Your task to perform on an android device: empty trash in the gmail app Image 0: 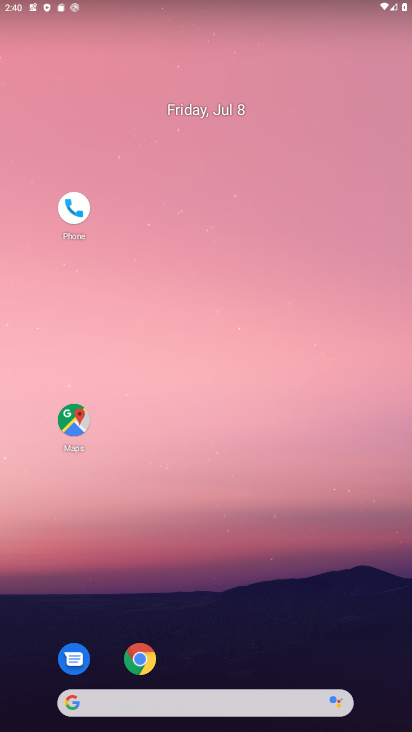
Step 0: drag from (203, 653) to (85, 1)
Your task to perform on an android device: empty trash in the gmail app Image 1: 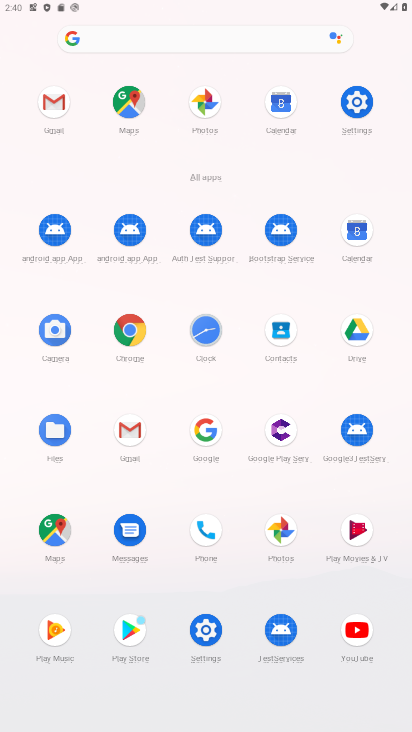
Step 1: click (178, 52)
Your task to perform on an android device: empty trash in the gmail app Image 2: 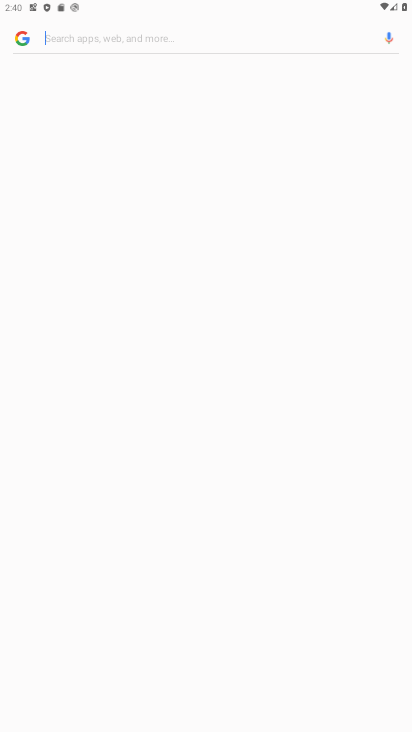
Step 2: drag from (288, 188) to (178, 18)
Your task to perform on an android device: empty trash in the gmail app Image 3: 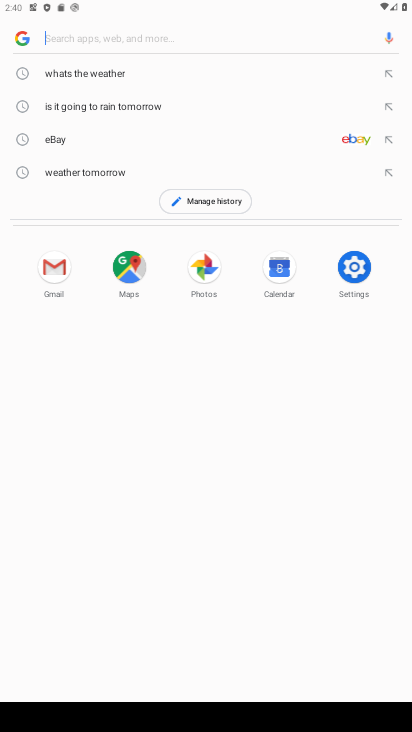
Step 3: press back button
Your task to perform on an android device: empty trash in the gmail app Image 4: 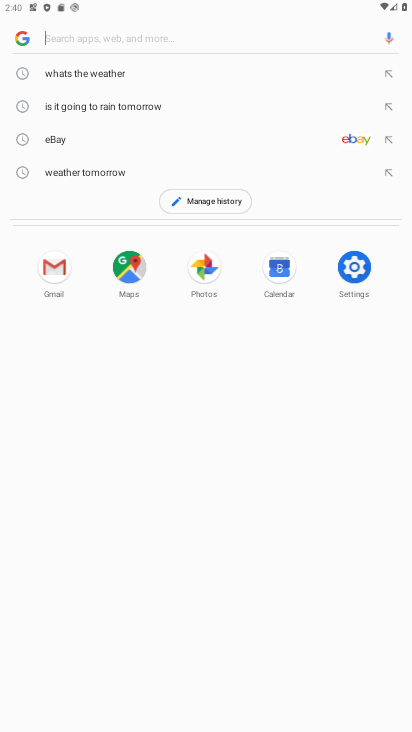
Step 4: press back button
Your task to perform on an android device: empty trash in the gmail app Image 5: 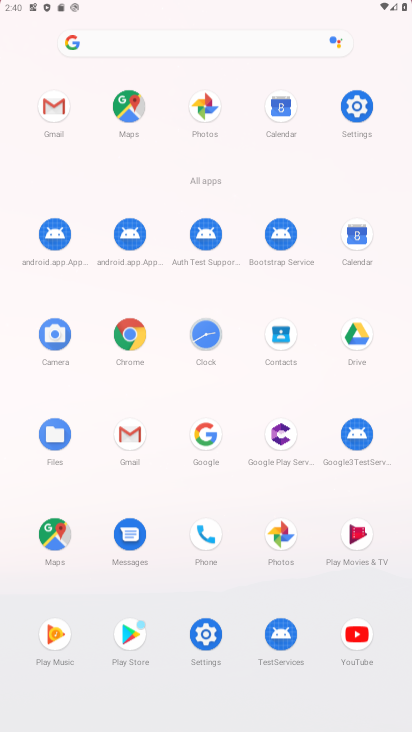
Step 5: press back button
Your task to perform on an android device: empty trash in the gmail app Image 6: 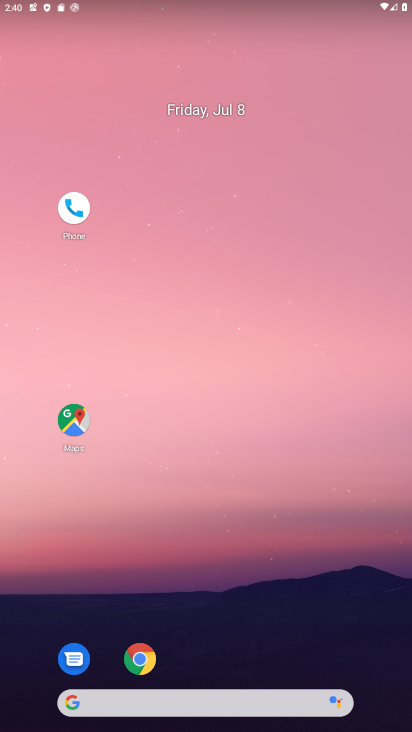
Step 6: press back button
Your task to perform on an android device: empty trash in the gmail app Image 7: 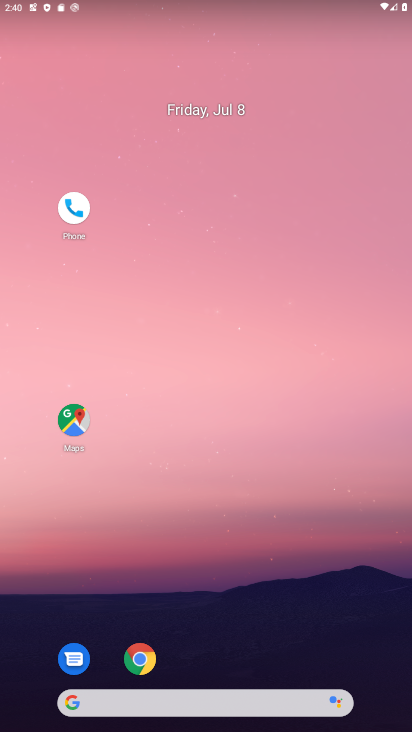
Step 7: click (166, 116)
Your task to perform on an android device: empty trash in the gmail app Image 8: 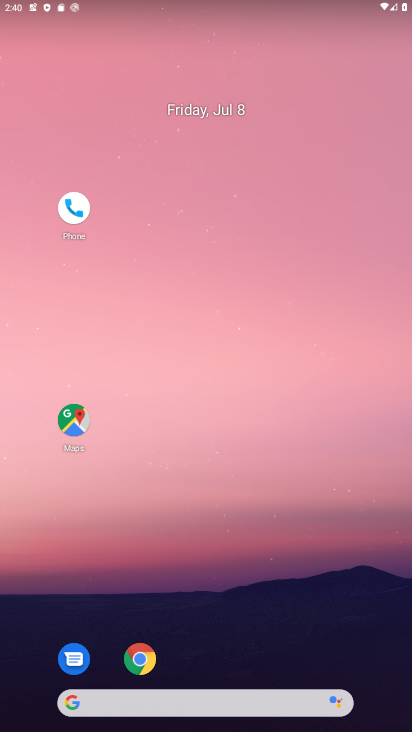
Step 8: drag from (296, 493) to (157, 90)
Your task to perform on an android device: empty trash in the gmail app Image 9: 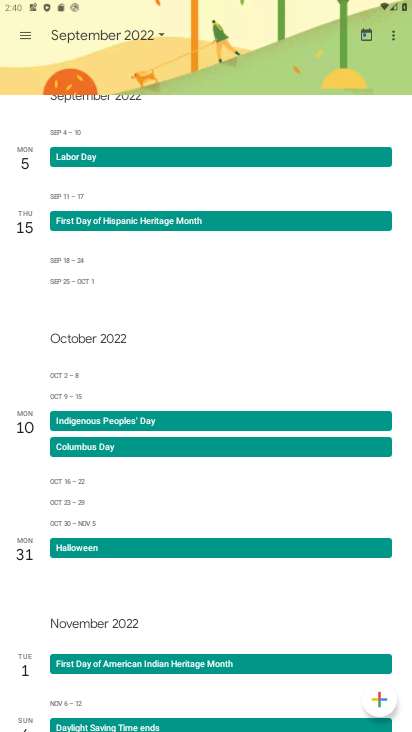
Step 9: drag from (44, 3) to (134, 0)
Your task to perform on an android device: empty trash in the gmail app Image 10: 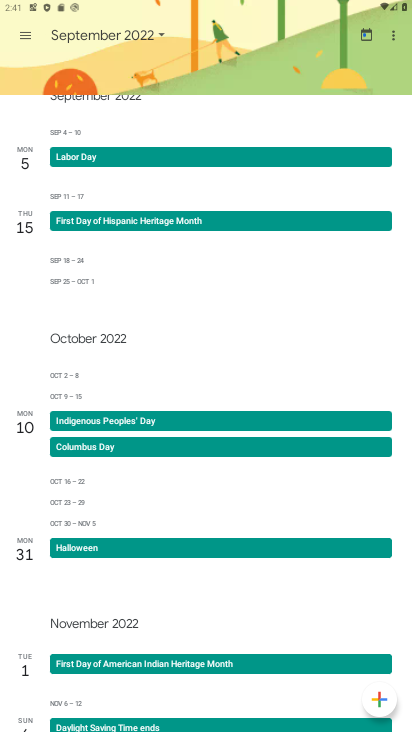
Step 10: press back button
Your task to perform on an android device: empty trash in the gmail app Image 11: 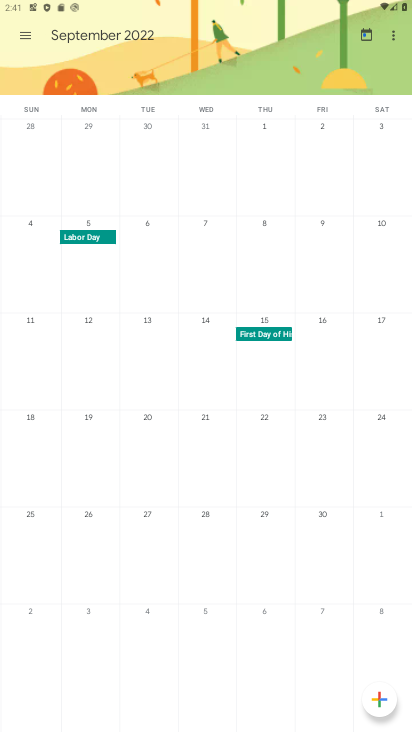
Step 11: press back button
Your task to perform on an android device: empty trash in the gmail app Image 12: 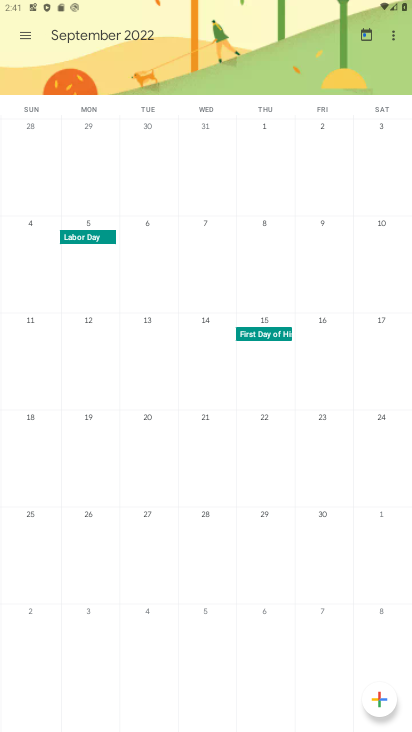
Step 12: press back button
Your task to perform on an android device: empty trash in the gmail app Image 13: 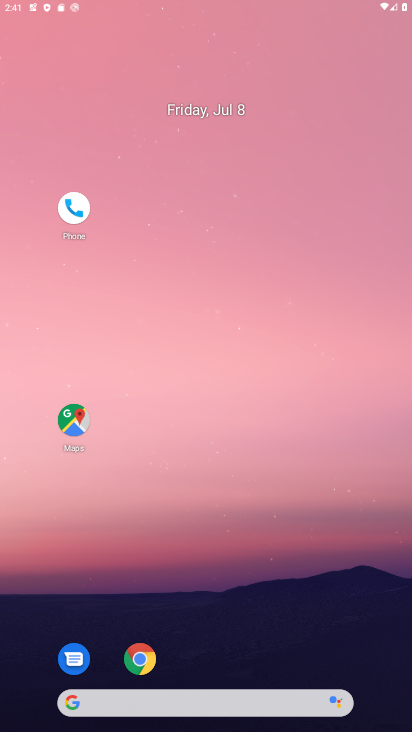
Step 13: press back button
Your task to perform on an android device: empty trash in the gmail app Image 14: 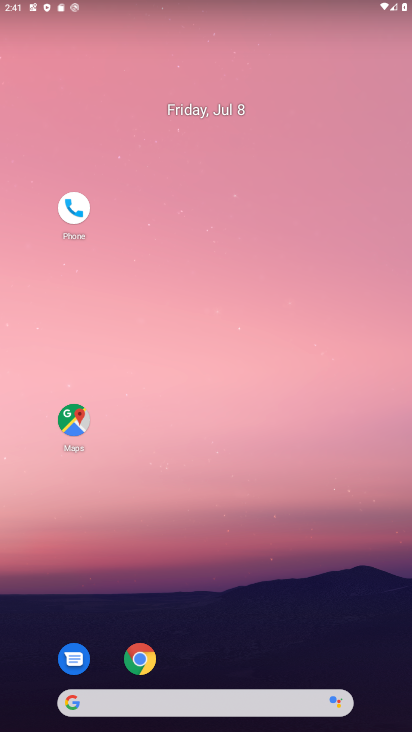
Step 14: press home button
Your task to perform on an android device: empty trash in the gmail app Image 15: 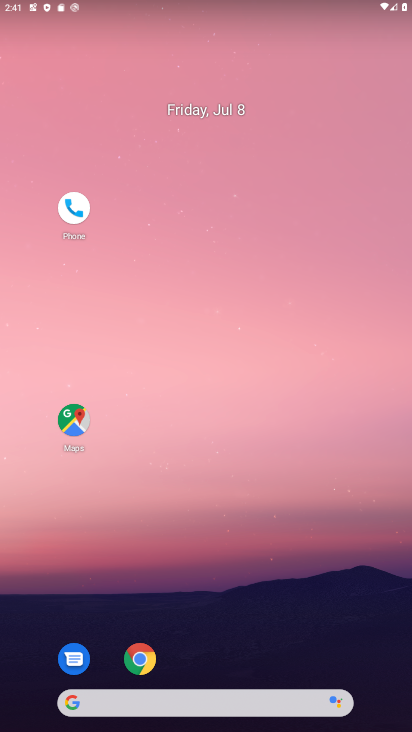
Step 15: press home button
Your task to perform on an android device: empty trash in the gmail app Image 16: 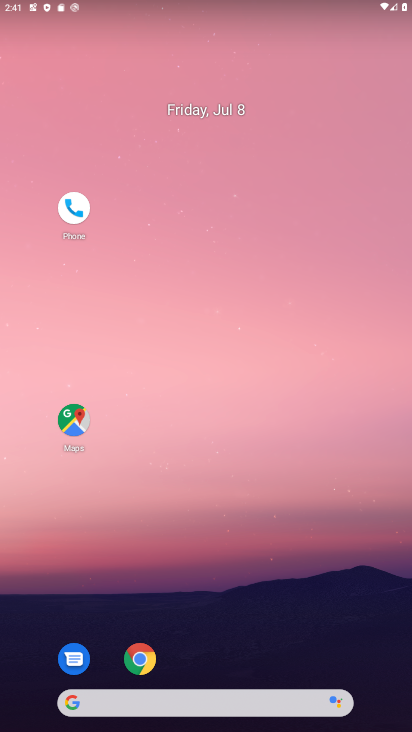
Step 16: press home button
Your task to perform on an android device: empty trash in the gmail app Image 17: 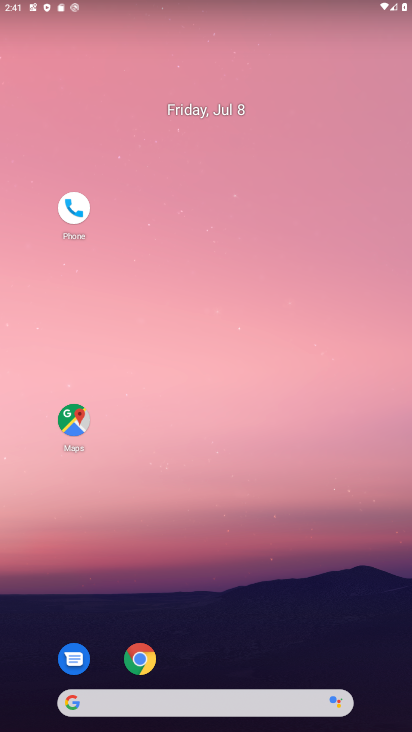
Step 17: drag from (207, 271) to (99, 11)
Your task to perform on an android device: empty trash in the gmail app Image 18: 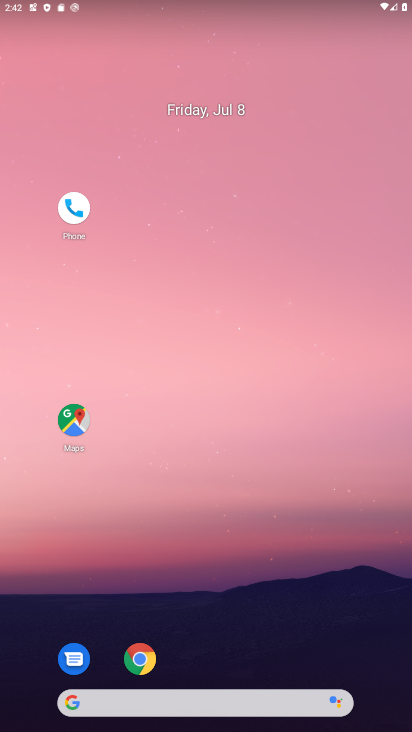
Step 18: click (103, 36)
Your task to perform on an android device: empty trash in the gmail app Image 19: 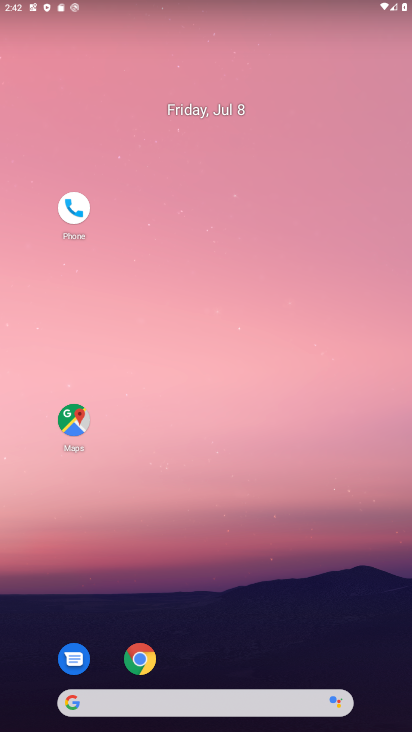
Step 19: drag from (164, 334) to (132, 0)
Your task to perform on an android device: empty trash in the gmail app Image 20: 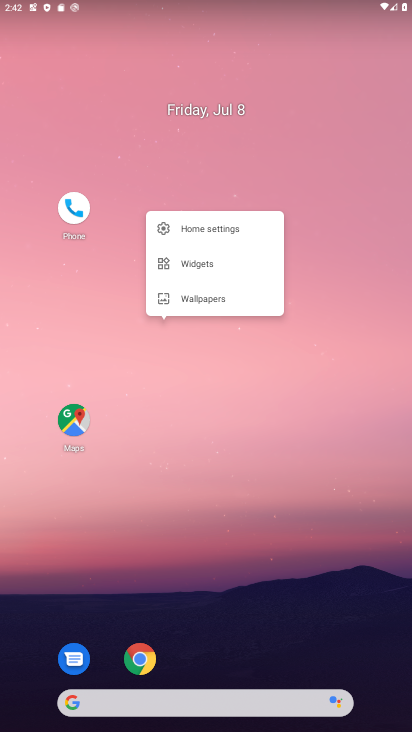
Step 20: click (119, 118)
Your task to perform on an android device: empty trash in the gmail app Image 21: 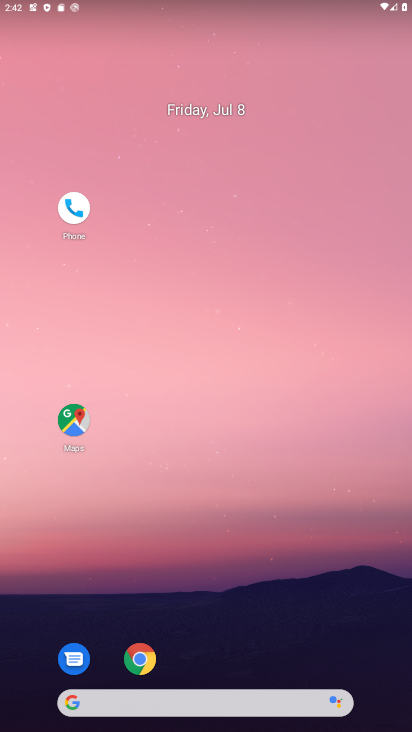
Step 21: click (185, 51)
Your task to perform on an android device: empty trash in the gmail app Image 22: 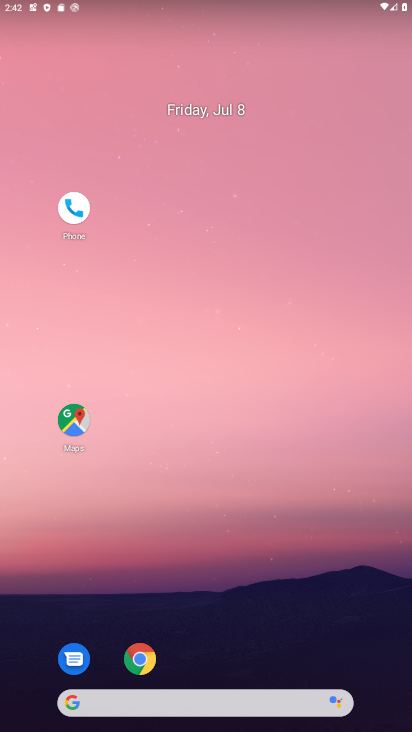
Step 22: drag from (225, 321) to (120, 7)
Your task to perform on an android device: empty trash in the gmail app Image 23: 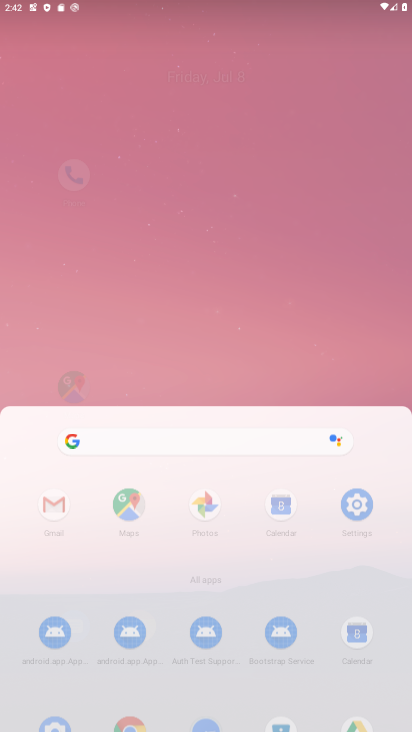
Step 23: drag from (181, 465) to (147, 6)
Your task to perform on an android device: empty trash in the gmail app Image 24: 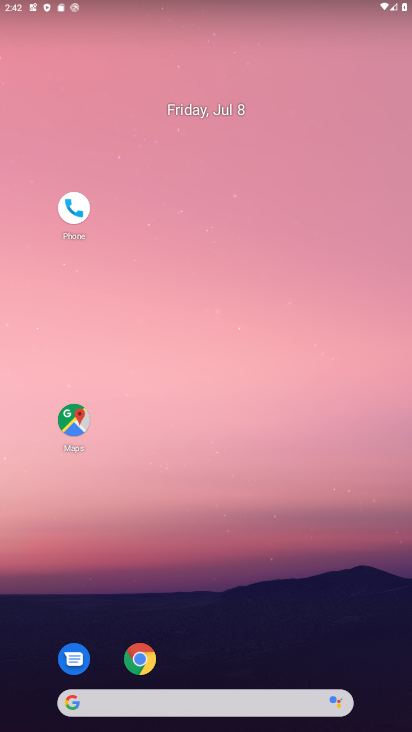
Step 24: drag from (250, 405) to (196, 25)
Your task to perform on an android device: empty trash in the gmail app Image 25: 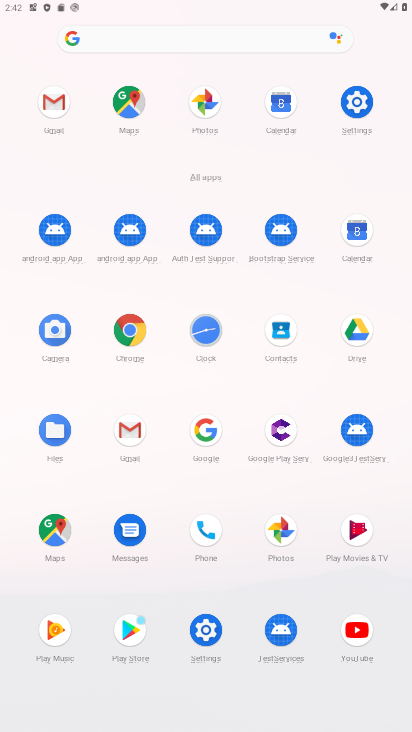
Step 25: drag from (170, 376) to (134, 101)
Your task to perform on an android device: empty trash in the gmail app Image 26: 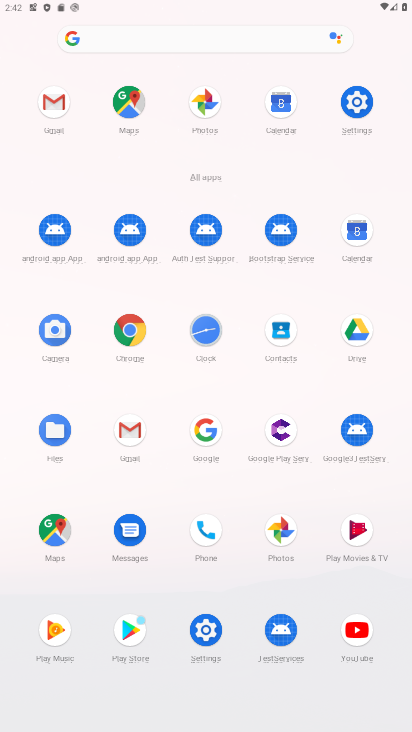
Step 26: click (113, 434)
Your task to perform on an android device: empty trash in the gmail app Image 27: 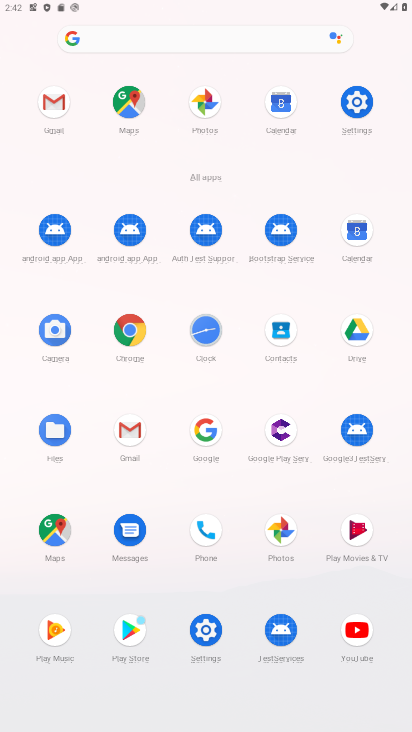
Step 27: click (128, 443)
Your task to perform on an android device: empty trash in the gmail app Image 28: 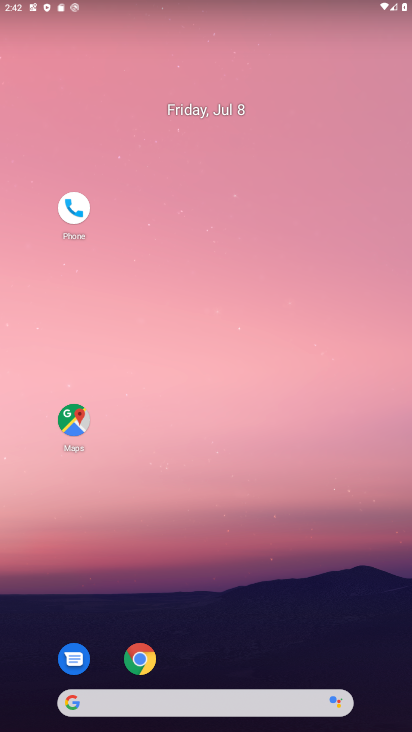
Step 28: drag from (144, 436) to (154, 471)
Your task to perform on an android device: empty trash in the gmail app Image 29: 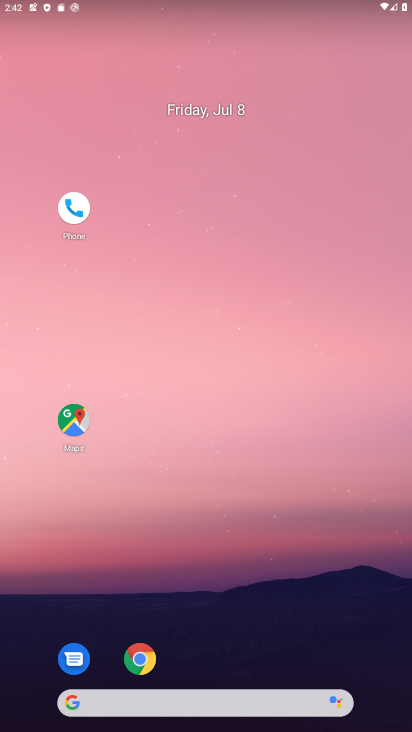
Step 29: drag from (171, 318) to (166, 365)
Your task to perform on an android device: empty trash in the gmail app Image 30: 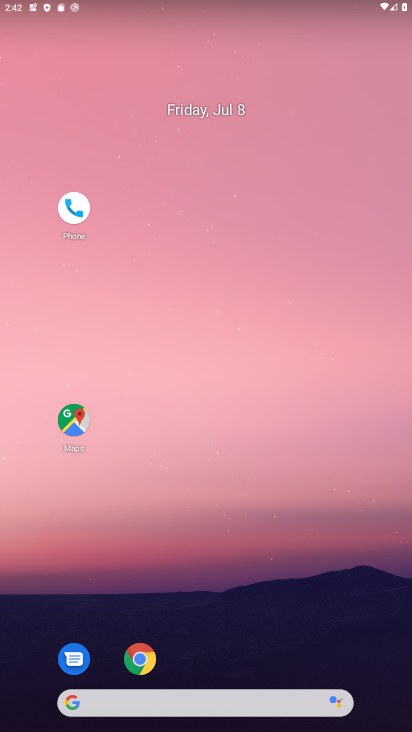
Step 30: click (198, 3)
Your task to perform on an android device: empty trash in the gmail app Image 31: 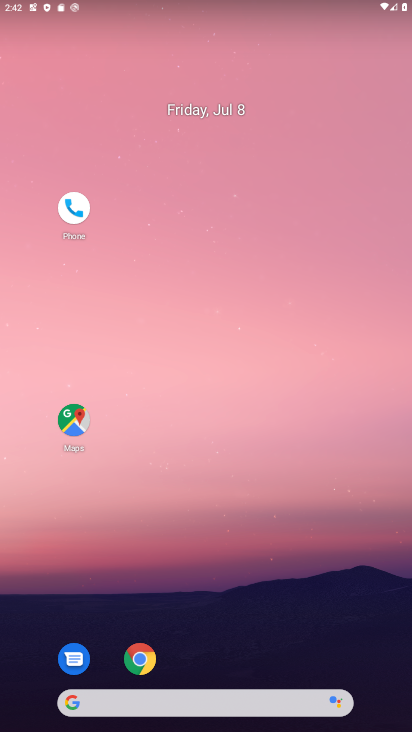
Step 31: click (143, 38)
Your task to perform on an android device: empty trash in the gmail app Image 32: 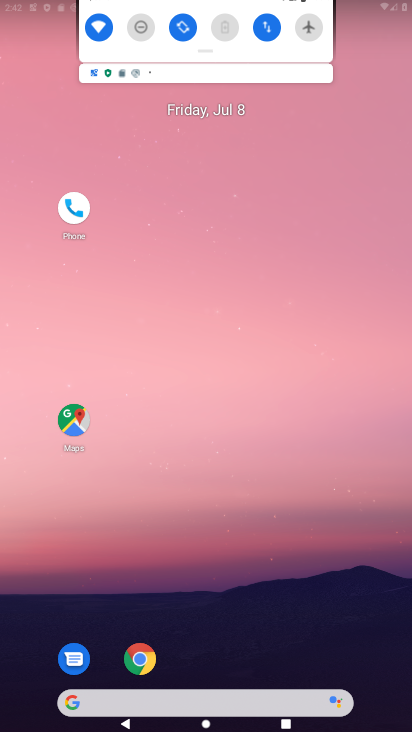
Step 32: task complete